Your task to perform on an android device: turn notification dots on Image 0: 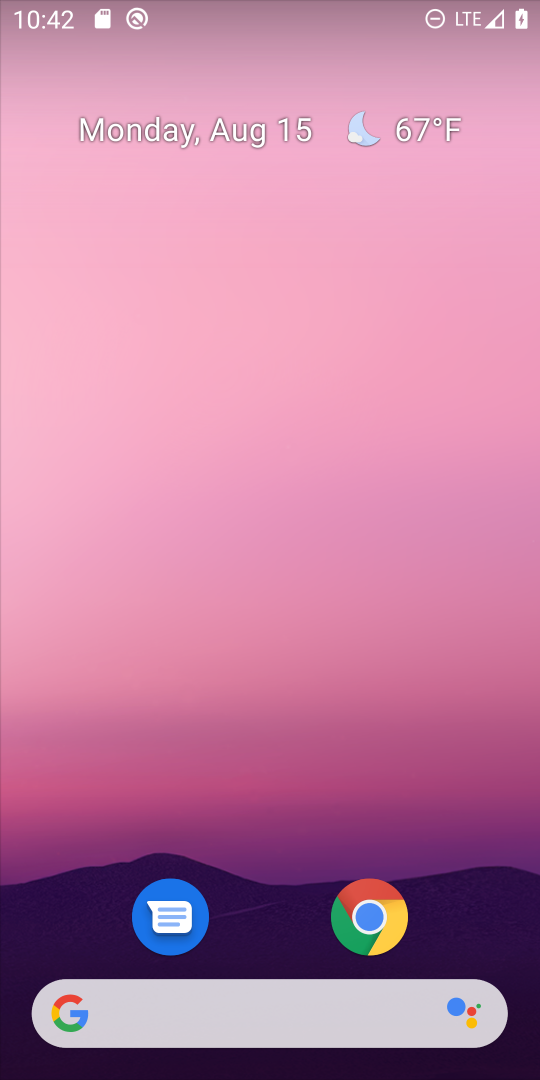
Step 0: drag from (293, 788) to (326, 4)
Your task to perform on an android device: turn notification dots on Image 1: 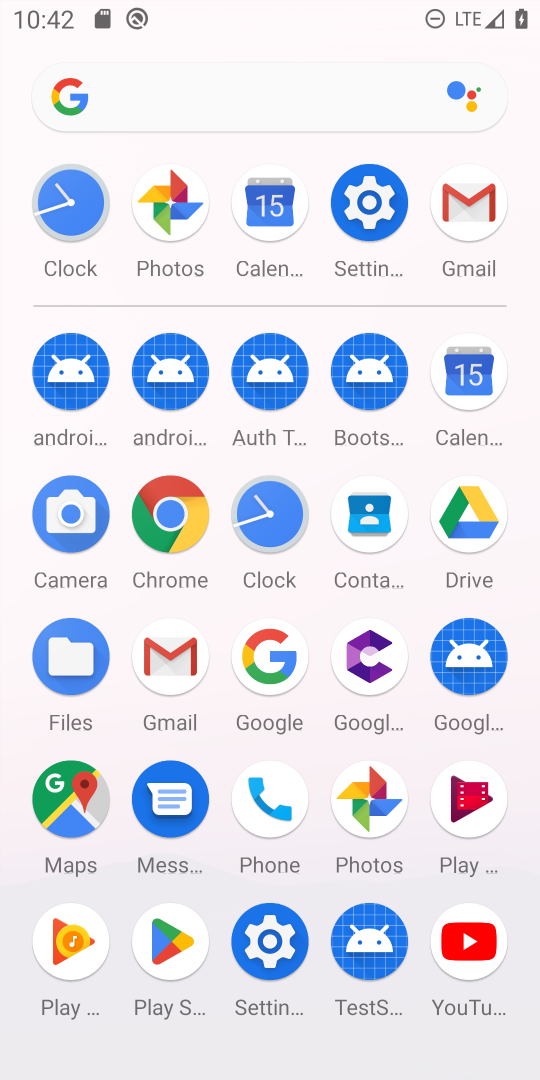
Step 1: click (367, 191)
Your task to perform on an android device: turn notification dots on Image 2: 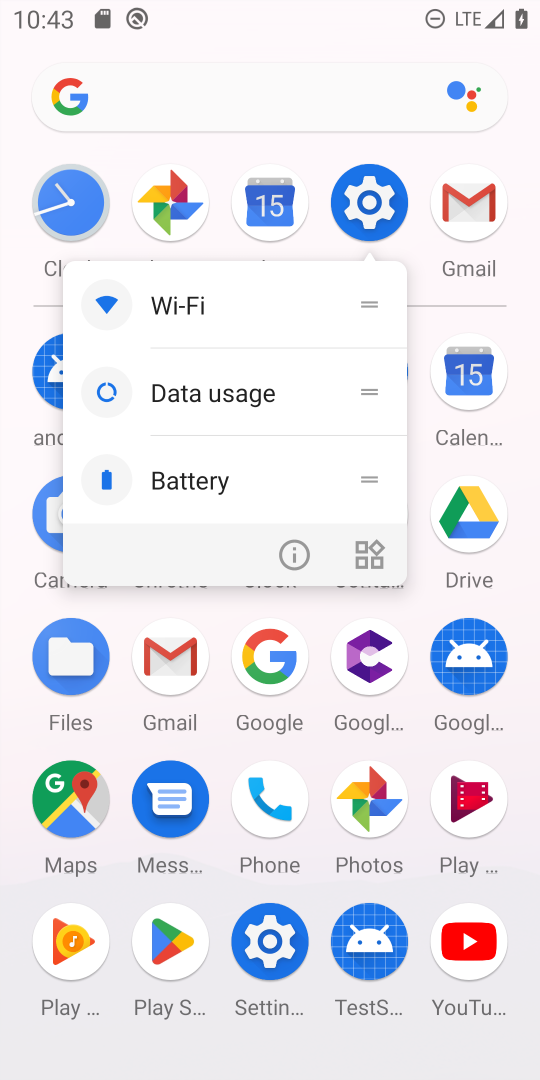
Step 2: click (362, 196)
Your task to perform on an android device: turn notification dots on Image 3: 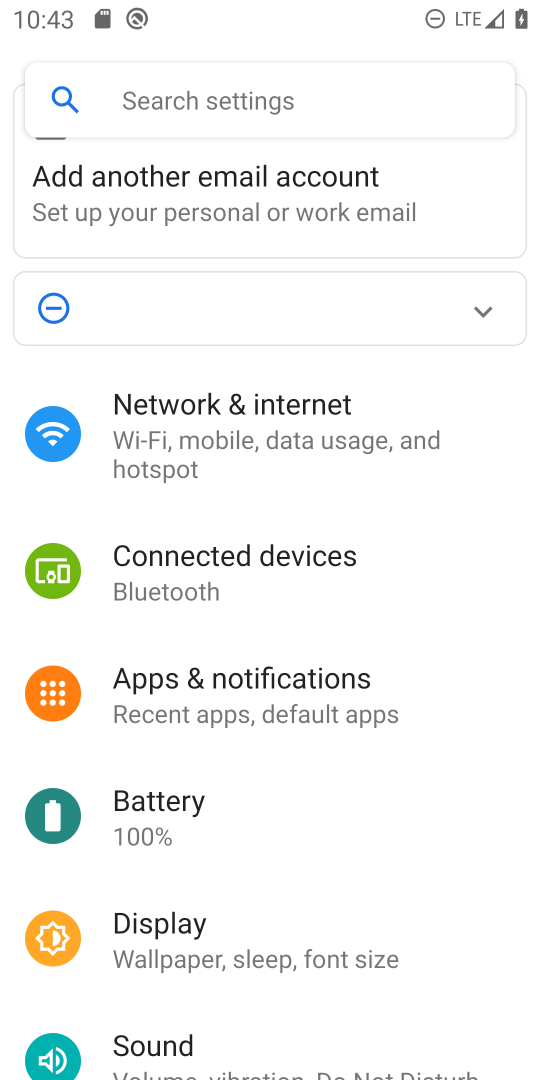
Step 3: click (338, 680)
Your task to perform on an android device: turn notification dots on Image 4: 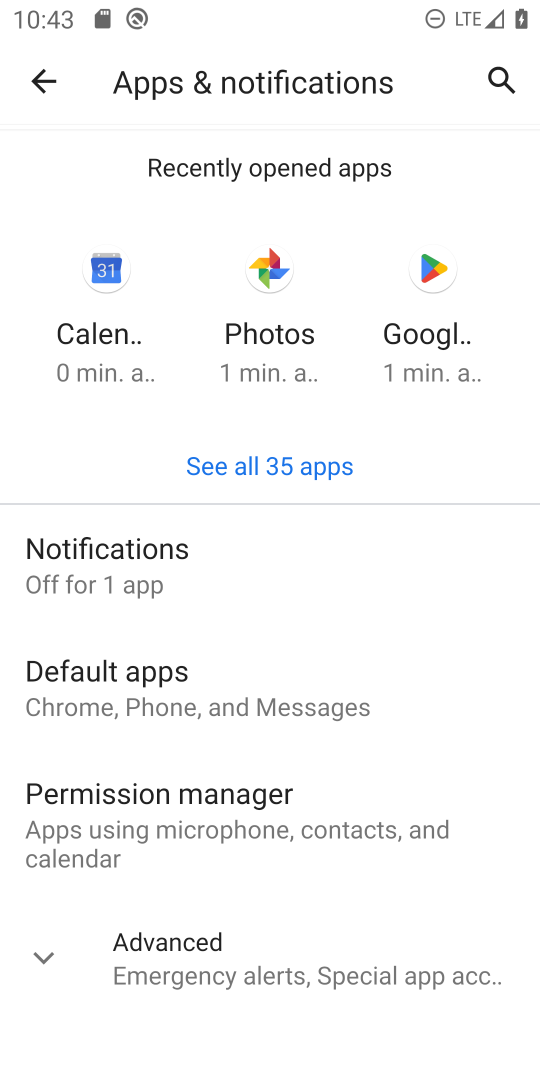
Step 4: click (130, 548)
Your task to perform on an android device: turn notification dots on Image 5: 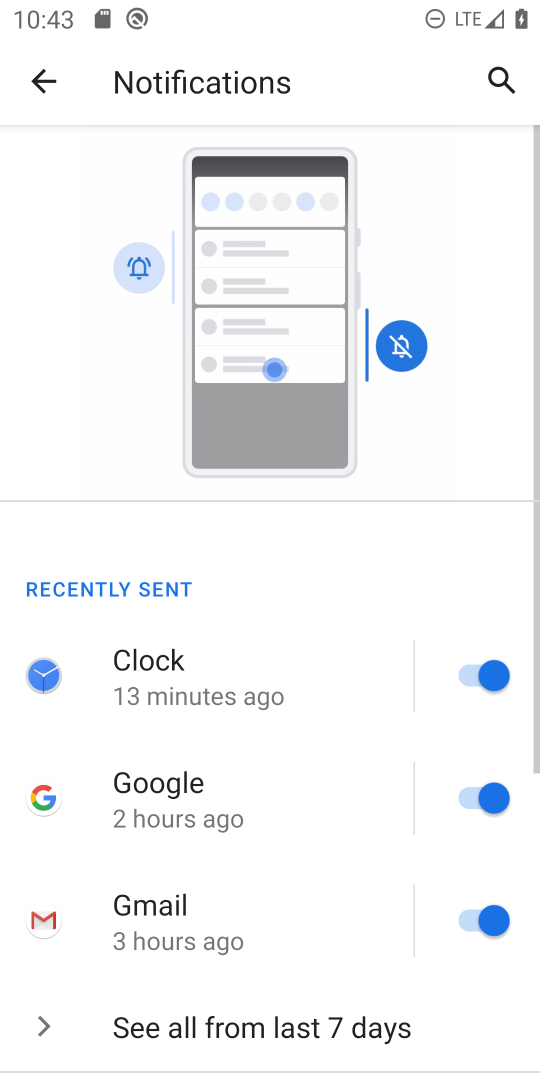
Step 5: drag from (267, 902) to (378, 42)
Your task to perform on an android device: turn notification dots on Image 6: 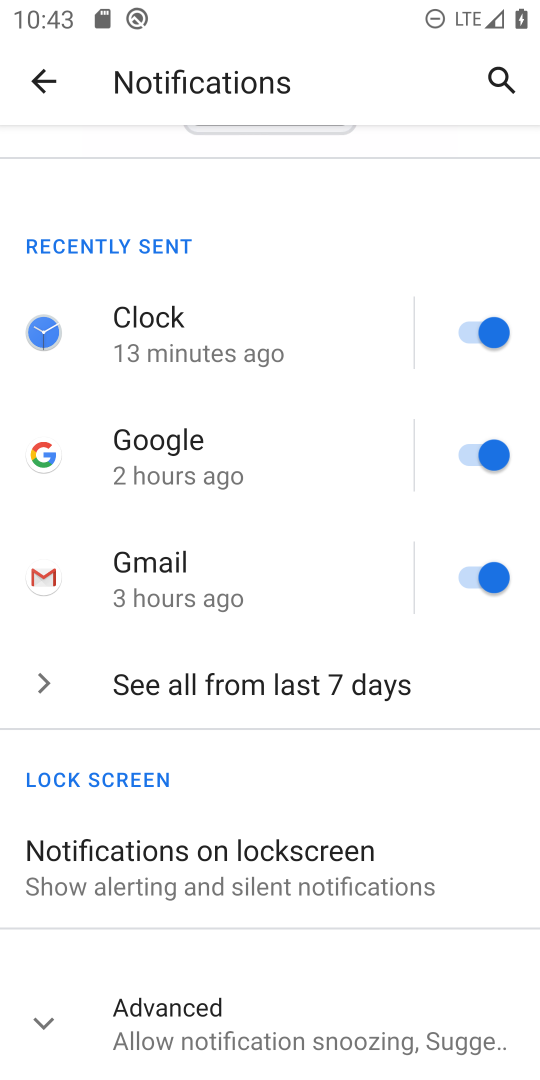
Step 6: click (43, 1015)
Your task to perform on an android device: turn notification dots on Image 7: 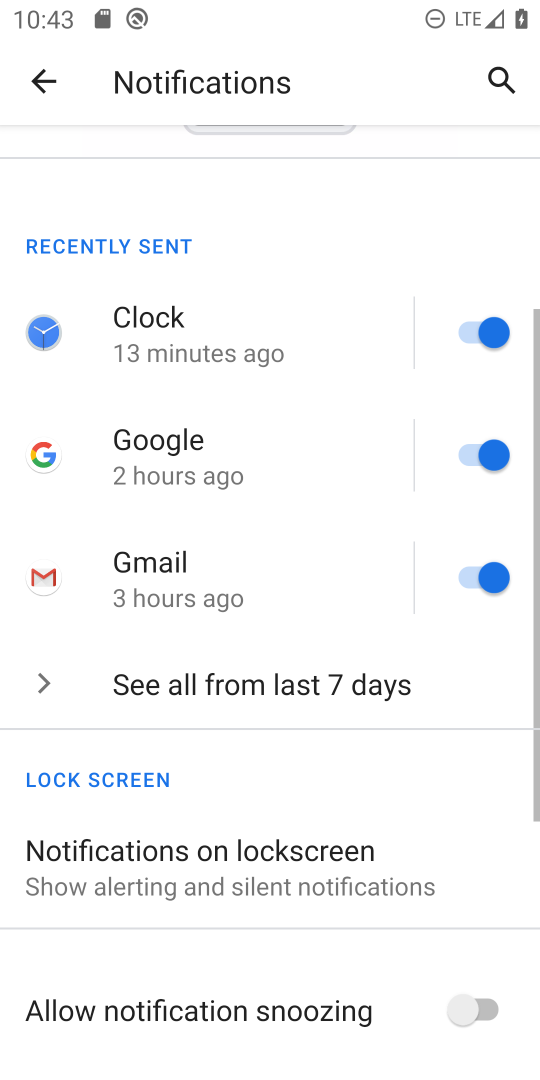
Step 7: drag from (295, 774) to (348, 249)
Your task to perform on an android device: turn notification dots on Image 8: 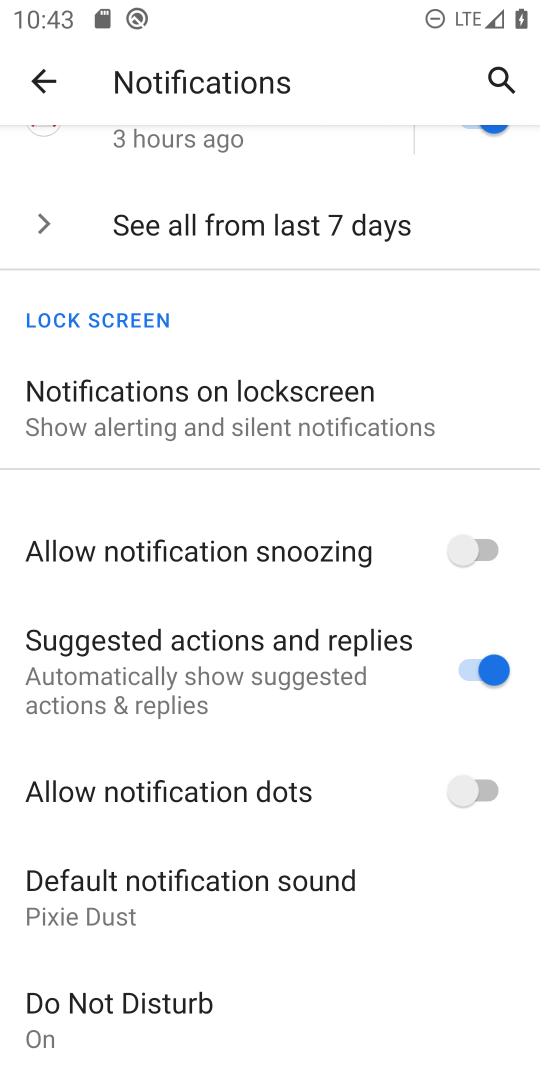
Step 8: click (493, 789)
Your task to perform on an android device: turn notification dots on Image 9: 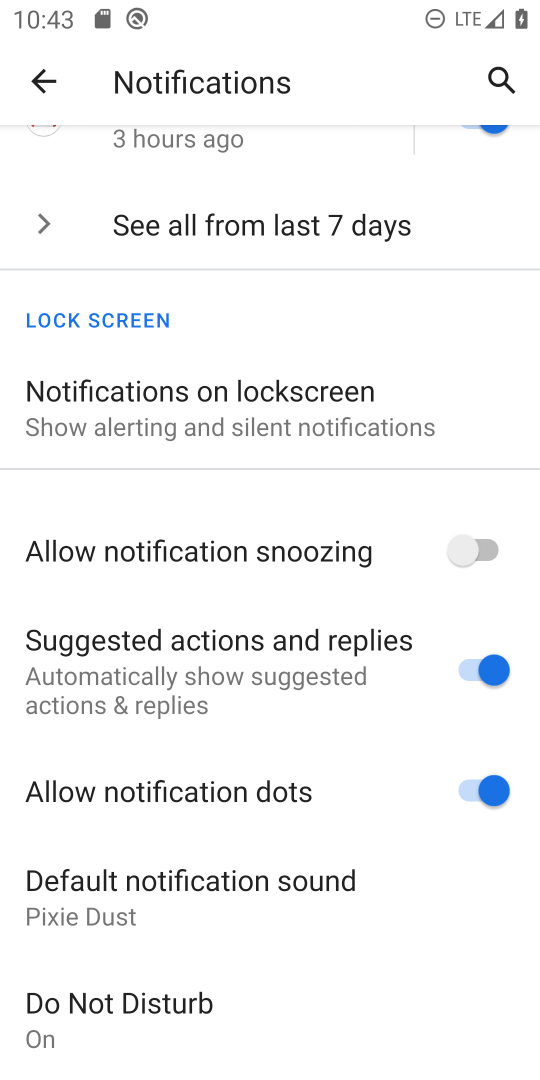
Step 9: task complete